Your task to perform on an android device: open app "Pandora - Music & Podcasts" (install if not already installed), go to login, and select forgot password Image 0: 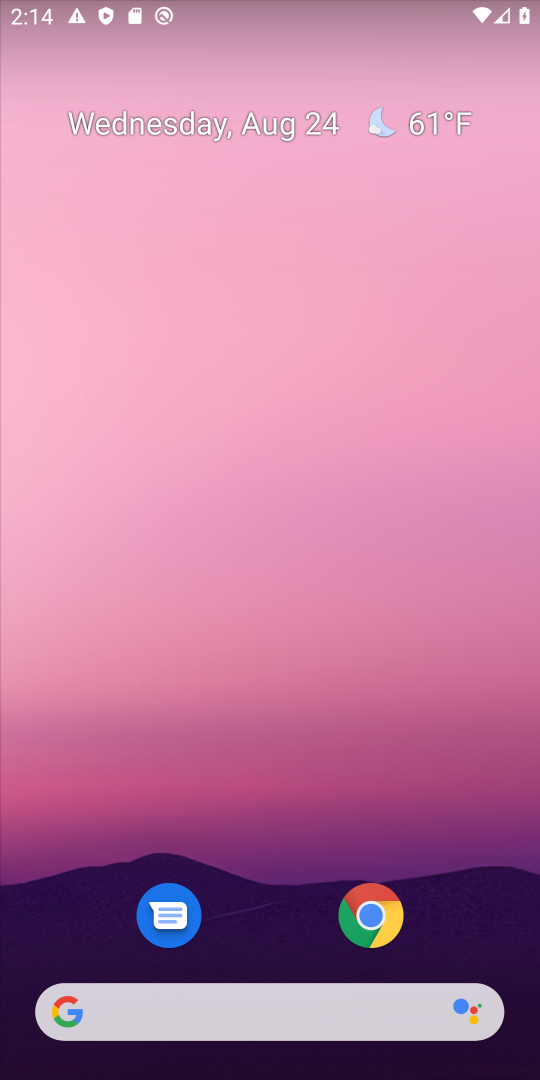
Step 0: drag from (248, 879) to (248, 171)
Your task to perform on an android device: open app "Pandora - Music & Podcasts" (install if not already installed), go to login, and select forgot password Image 1: 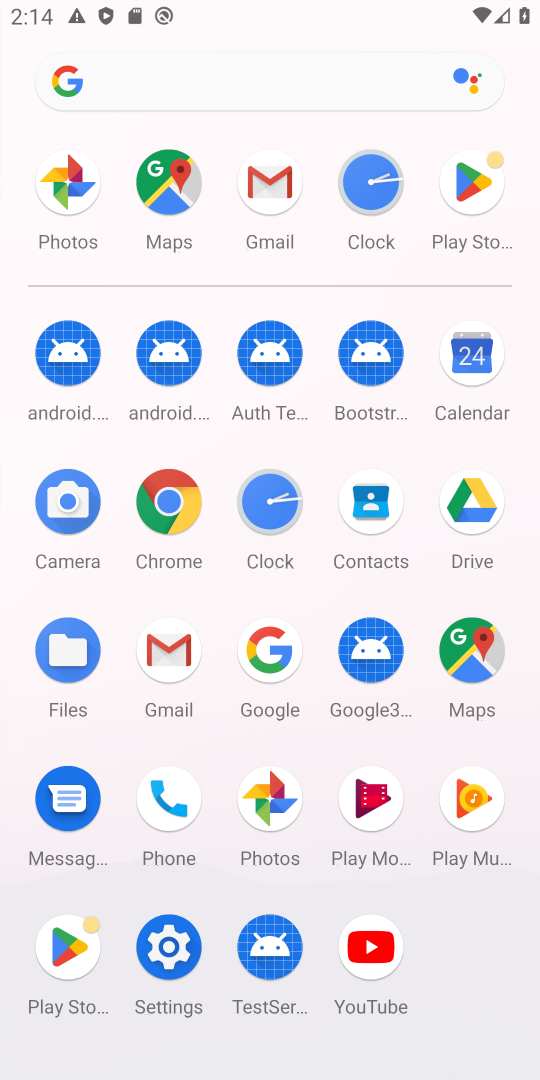
Step 1: click (444, 183)
Your task to perform on an android device: open app "Pandora - Music & Podcasts" (install if not already installed), go to login, and select forgot password Image 2: 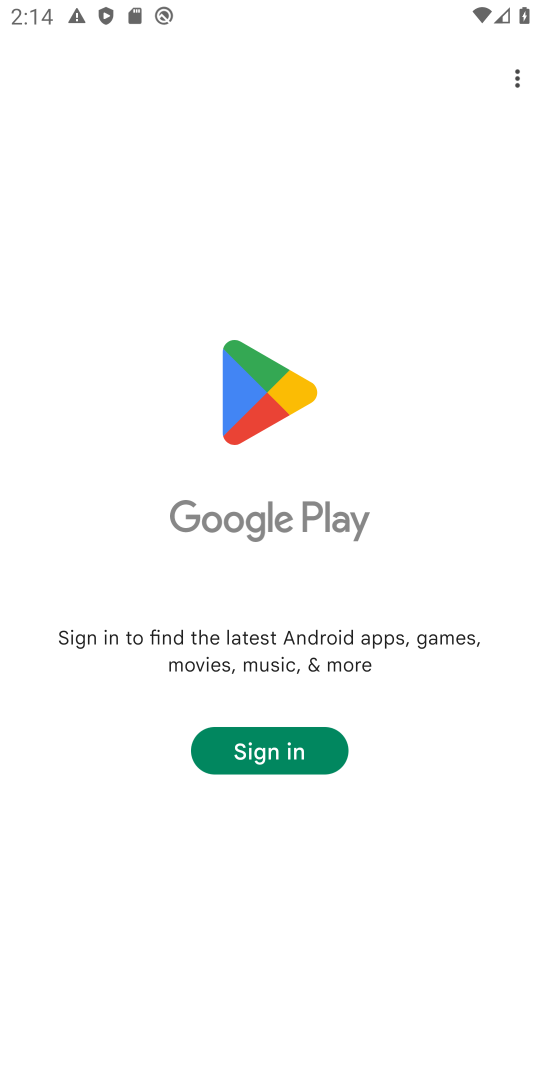
Step 2: task complete